Your task to perform on an android device: Search for pizza restaurants on Maps Image 0: 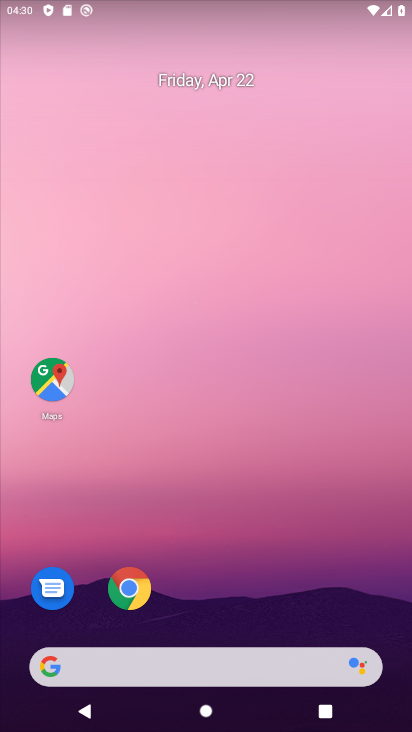
Step 0: drag from (251, 572) to (242, 70)
Your task to perform on an android device: Search for pizza restaurants on Maps Image 1: 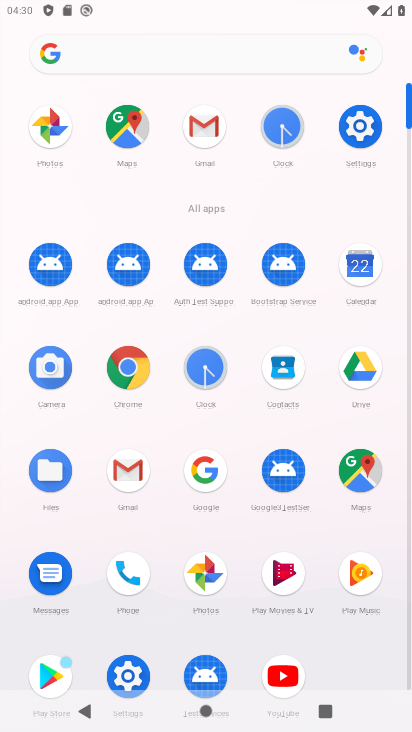
Step 1: click (364, 460)
Your task to perform on an android device: Search for pizza restaurants on Maps Image 2: 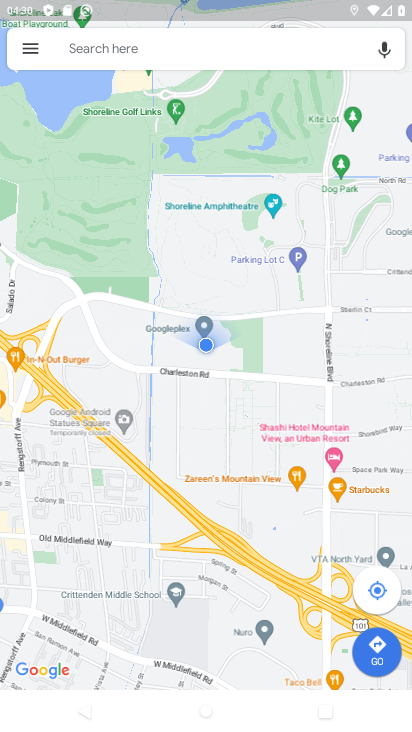
Step 2: click (178, 51)
Your task to perform on an android device: Search for pizza restaurants on Maps Image 3: 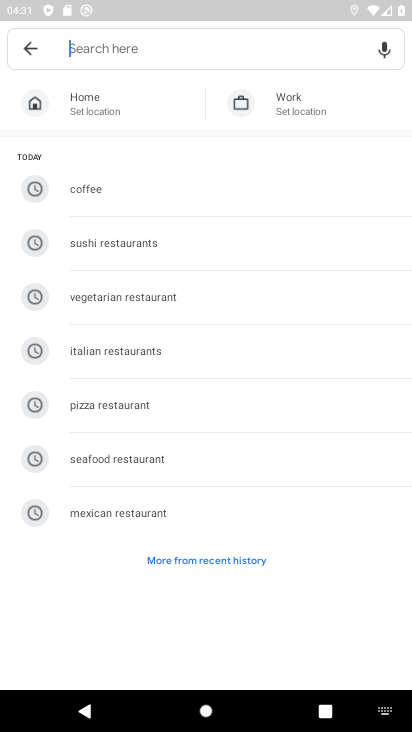
Step 3: type "pizza restaurants"
Your task to perform on an android device: Search for pizza restaurants on Maps Image 4: 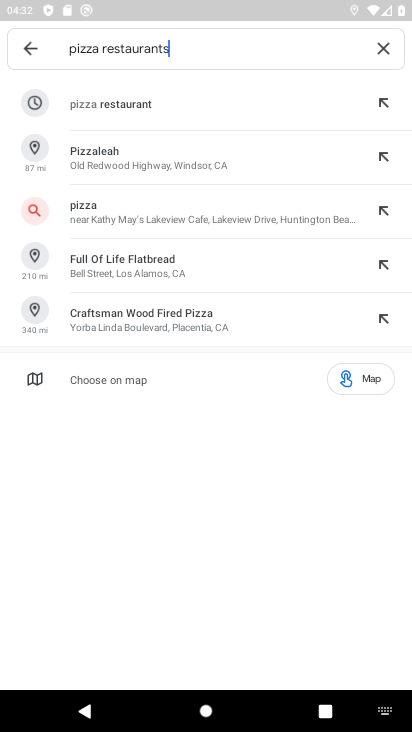
Step 4: click (165, 98)
Your task to perform on an android device: Search for pizza restaurants on Maps Image 5: 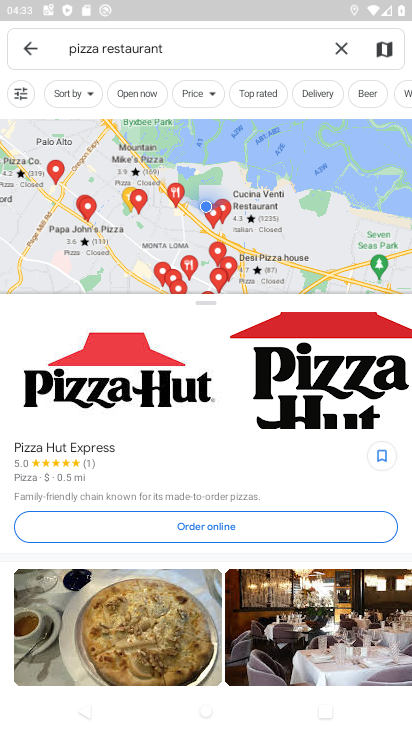
Step 5: task complete